Your task to perform on an android device: Do I have any events today? Image 0: 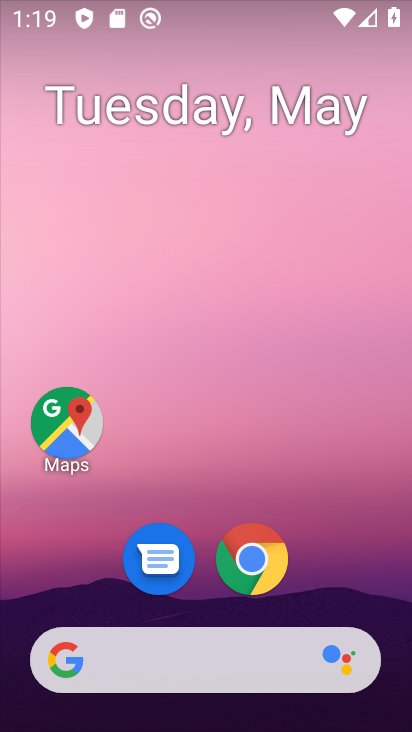
Step 0: drag from (401, 629) to (278, 33)
Your task to perform on an android device: Do I have any events today? Image 1: 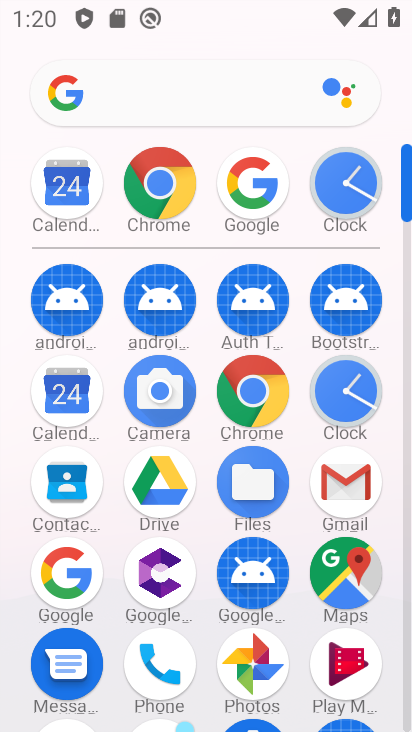
Step 1: click (67, 416)
Your task to perform on an android device: Do I have any events today? Image 2: 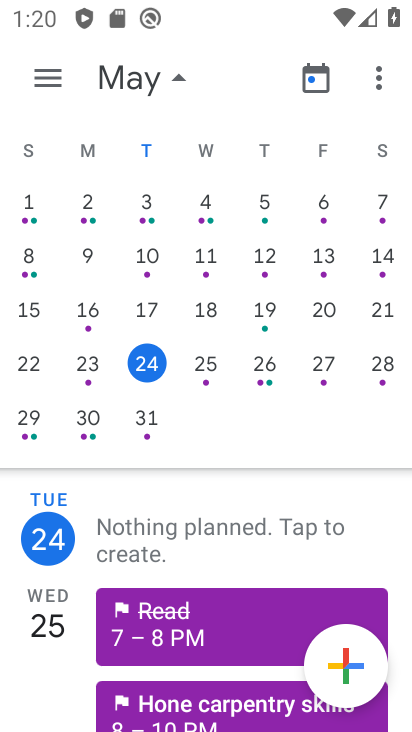
Step 2: click (155, 365)
Your task to perform on an android device: Do I have any events today? Image 3: 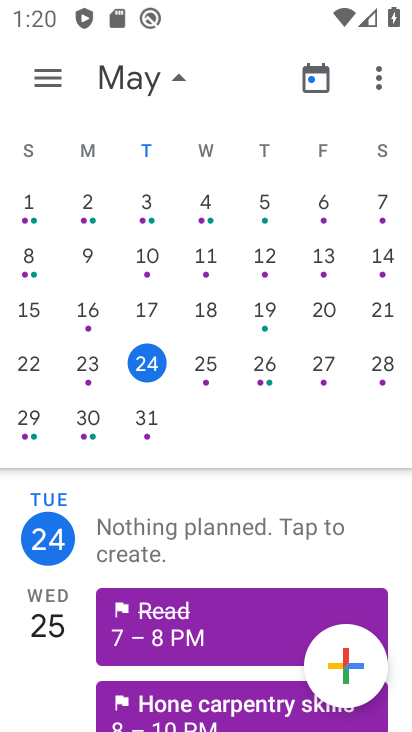
Step 3: task complete